Your task to perform on an android device: Turn on the flashlight Image 0: 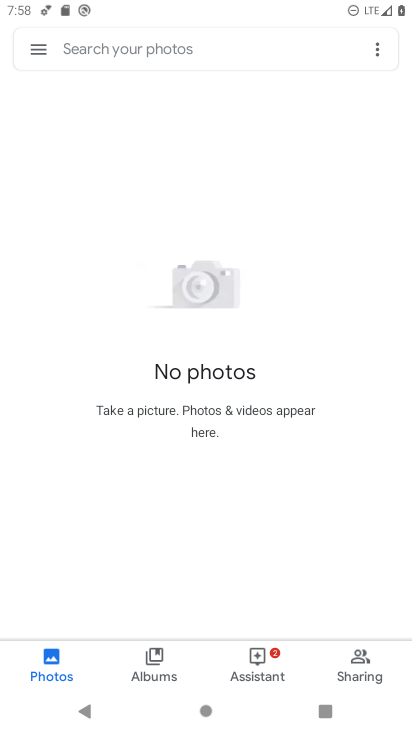
Step 0: press home button
Your task to perform on an android device: Turn on the flashlight Image 1: 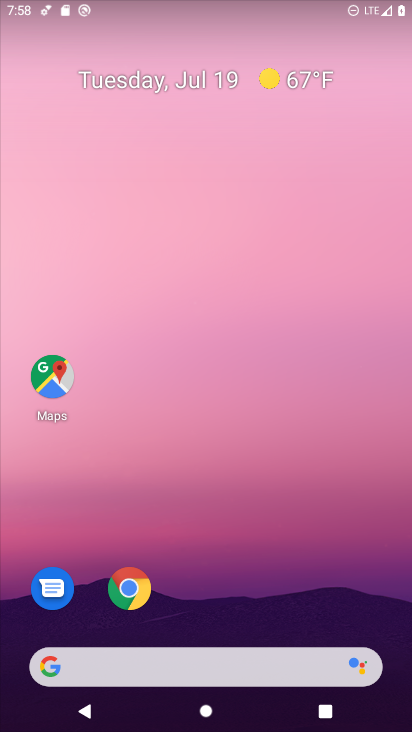
Step 1: task complete